Your task to perform on an android device: Go to privacy settings Image 0: 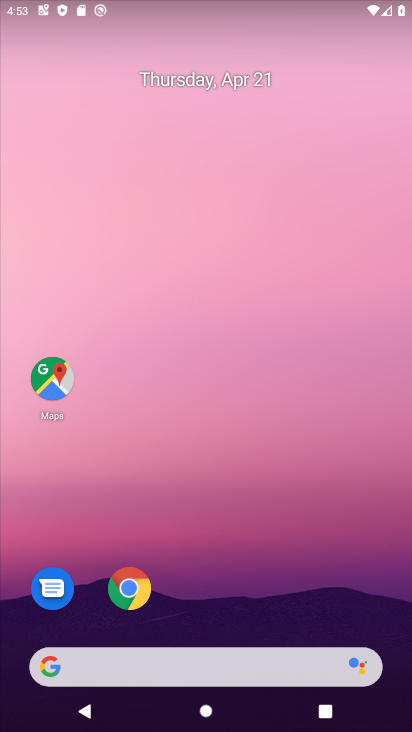
Step 0: click (126, 585)
Your task to perform on an android device: Go to privacy settings Image 1: 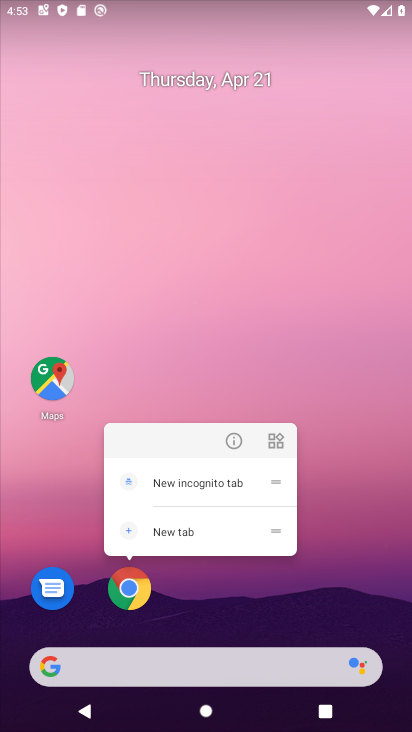
Step 1: click (275, 604)
Your task to perform on an android device: Go to privacy settings Image 2: 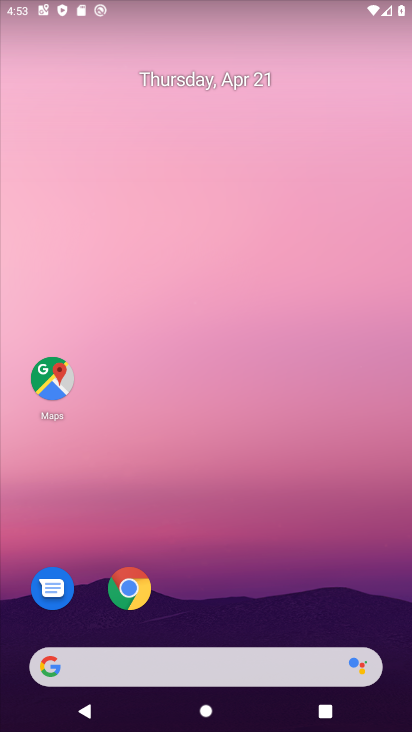
Step 2: click (377, 66)
Your task to perform on an android device: Go to privacy settings Image 3: 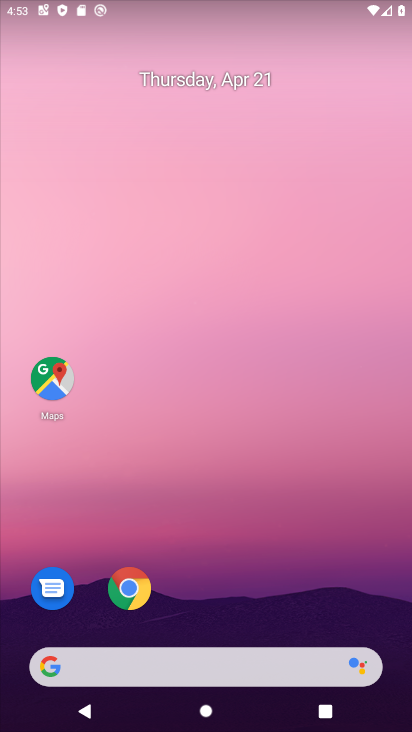
Step 3: drag from (221, 561) to (280, 85)
Your task to perform on an android device: Go to privacy settings Image 4: 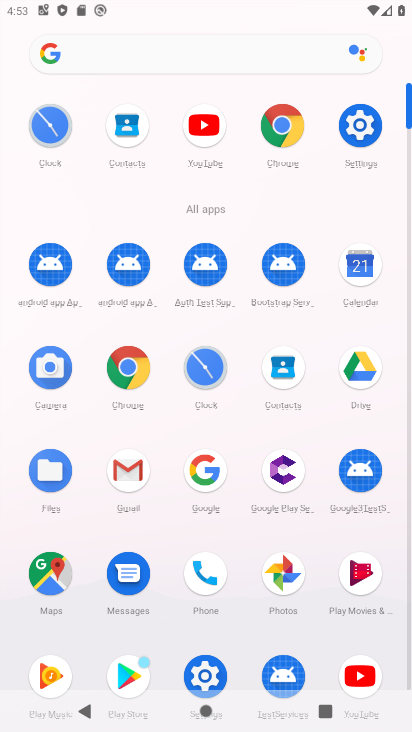
Step 4: click (364, 116)
Your task to perform on an android device: Go to privacy settings Image 5: 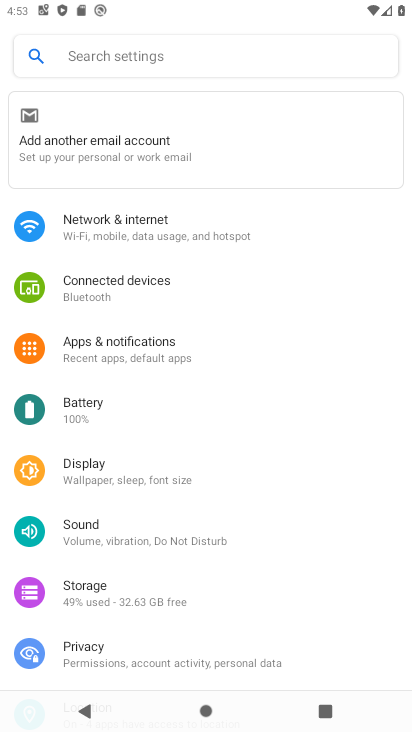
Step 5: click (107, 666)
Your task to perform on an android device: Go to privacy settings Image 6: 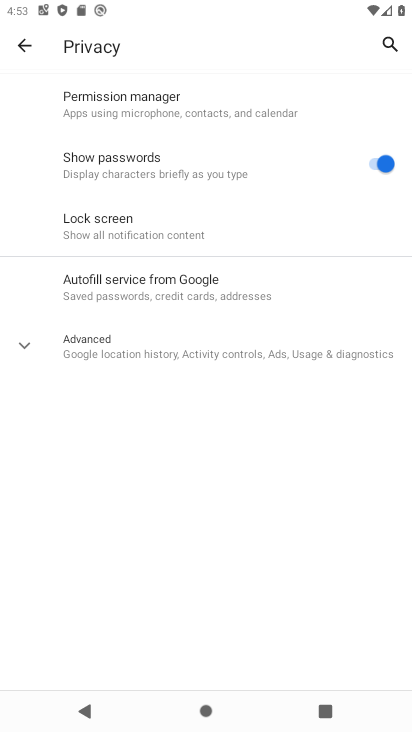
Step 6: task complete